Your task to perform on an android device: empty trash in google photos Image 0: 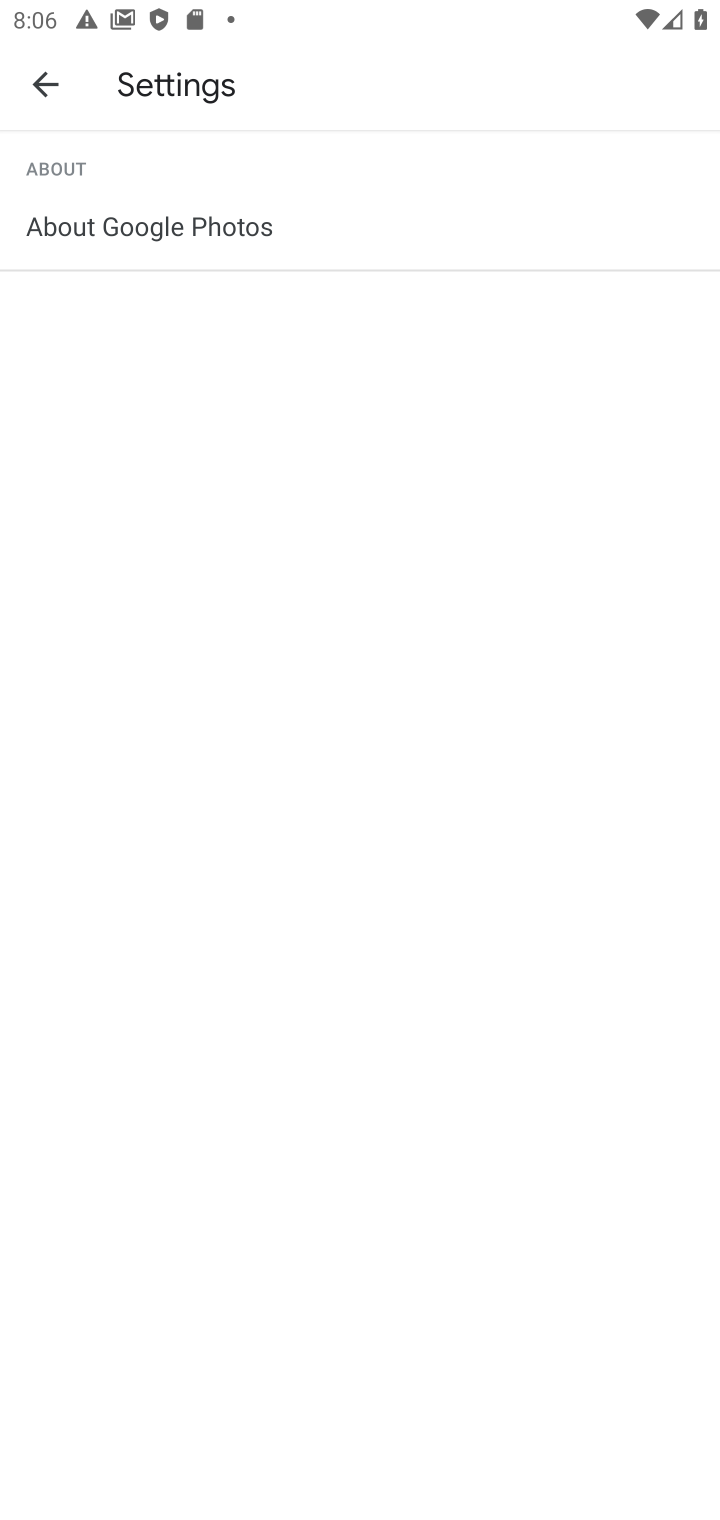
Step 0: press home button
Your task to perform on an android device: empty trash in google photos Image 1: 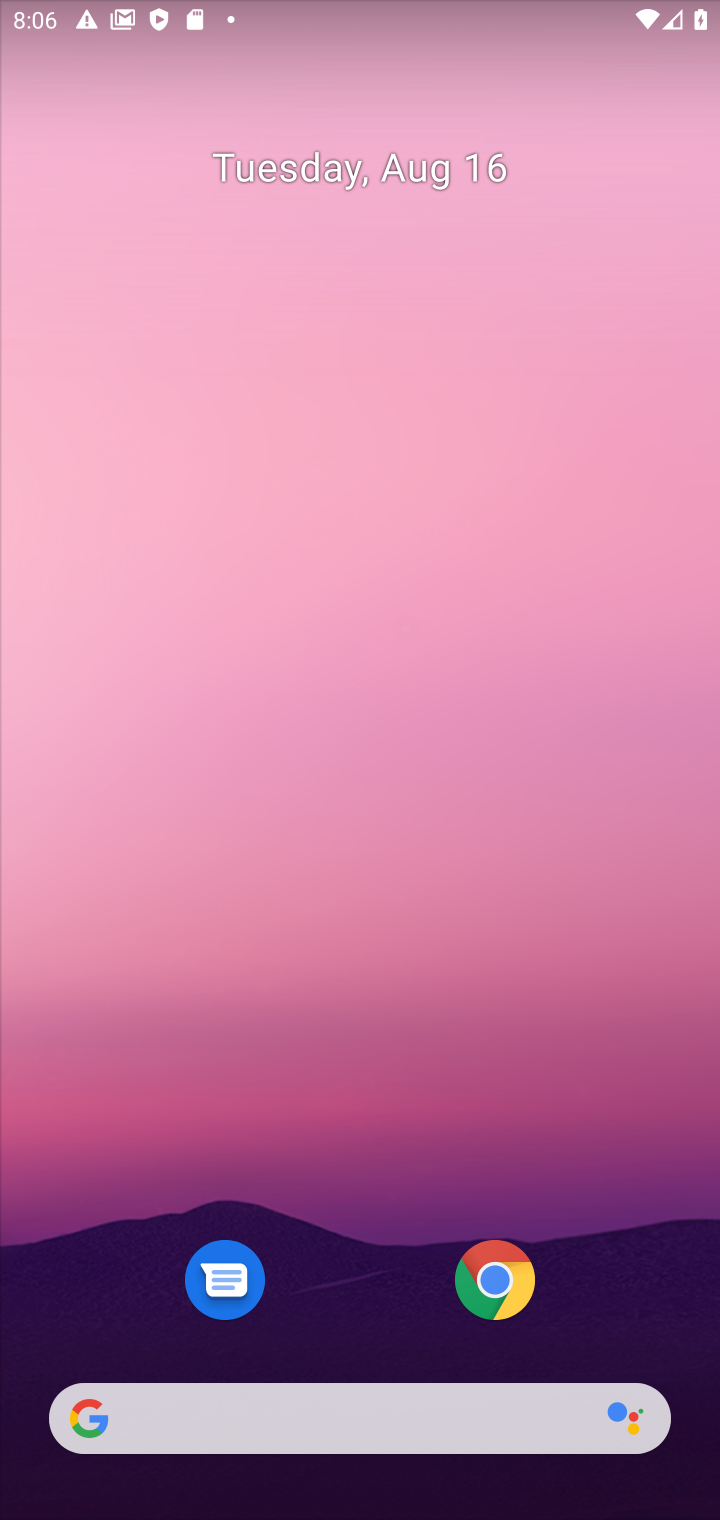
Step 1: drag from (380, 987) to (462, 705)
Your task to perform on an android device: empty trash in google photos Image 2: 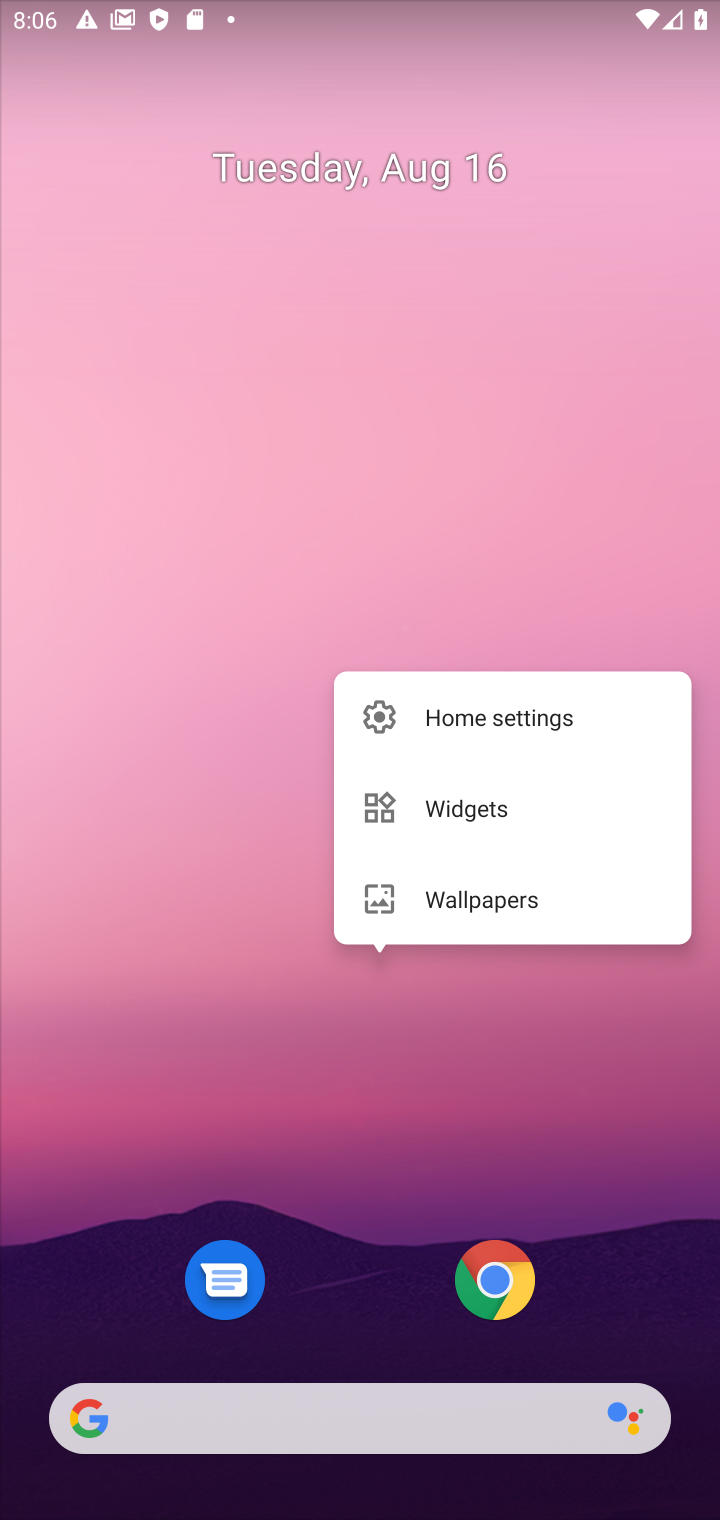
Step 2: click (371, 1115)
Your task to perform on an android device: empty trash in google photos Image 3: 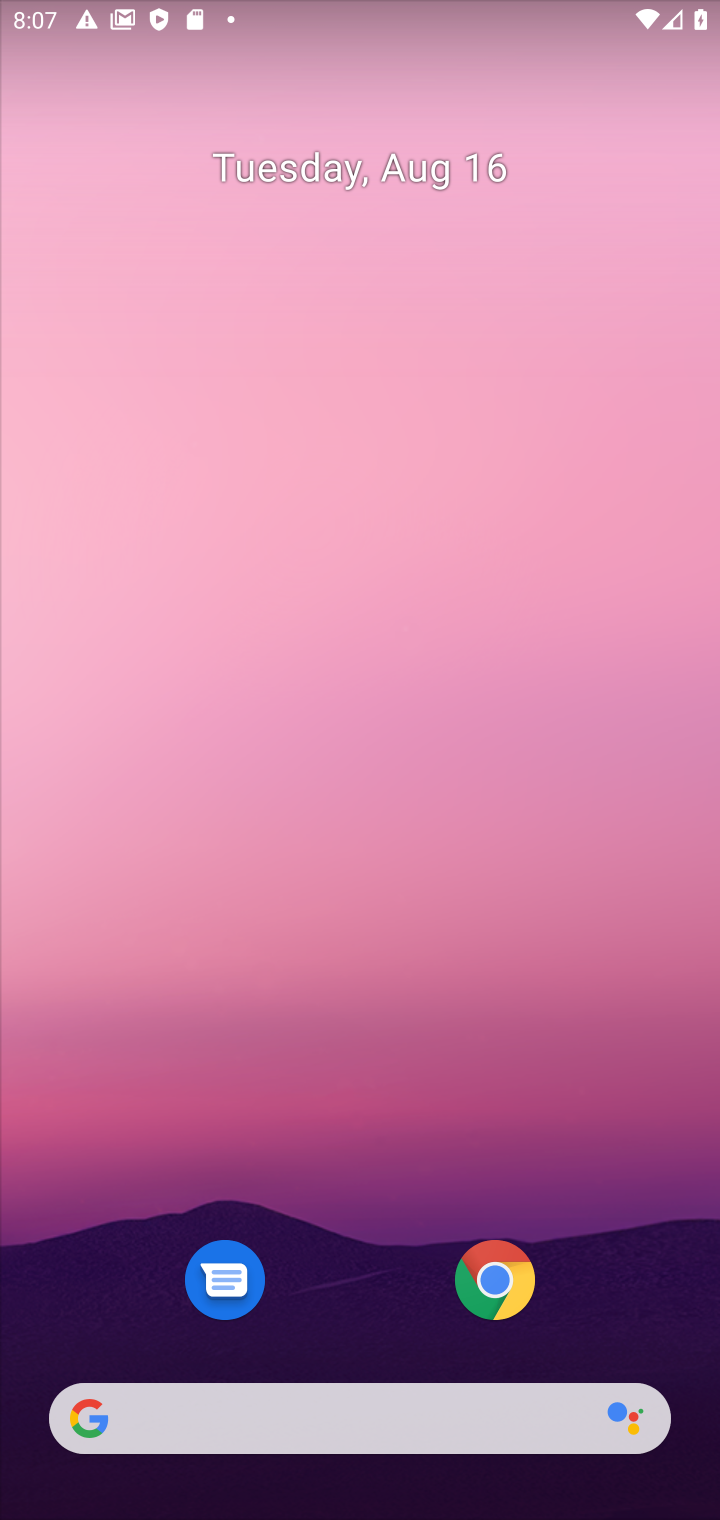
Step 3: drag from (358, 1375) to (390, 476)
Your task to perform on an android device: empty trash in google photos Image 4: 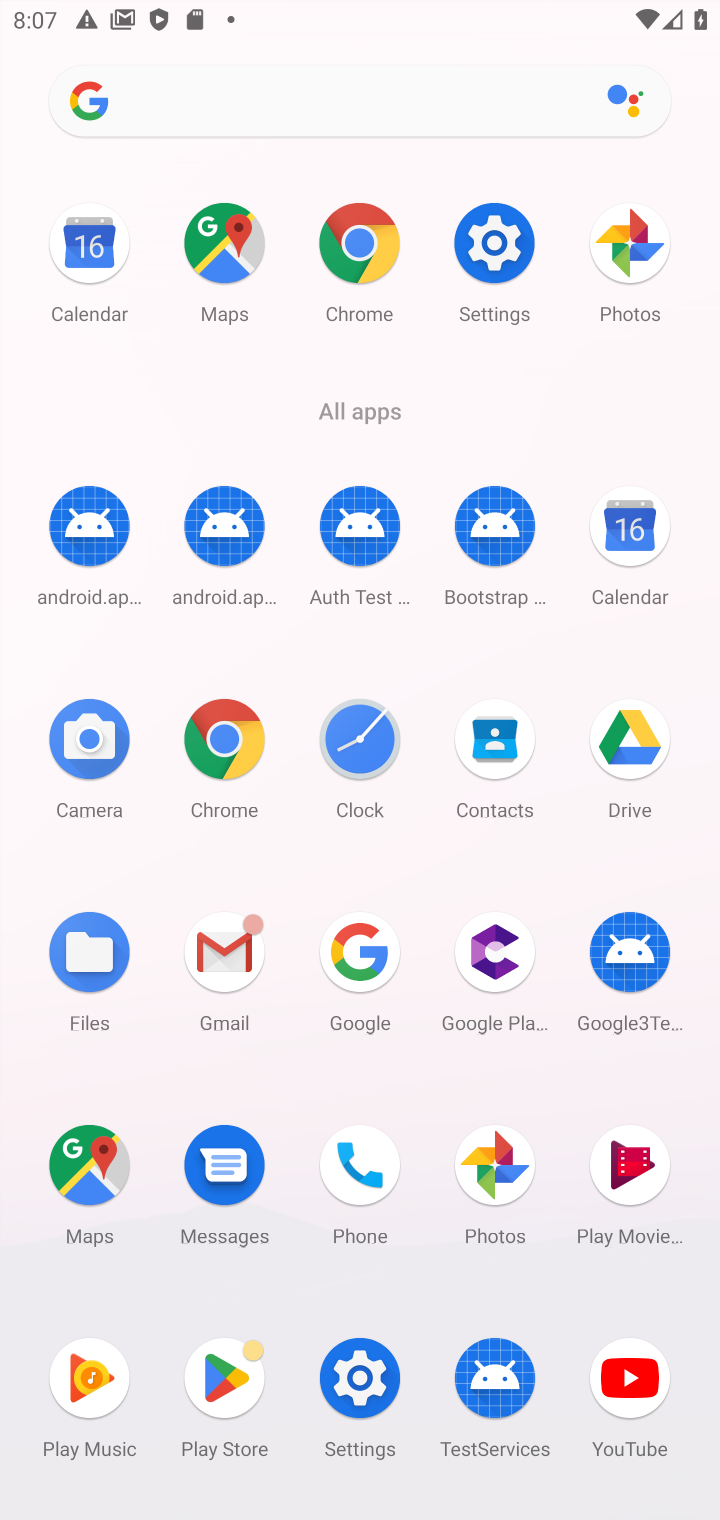
Step 4: click (496, 1184)
Your task to perform on an android device: empty trash in google photos Image 5: 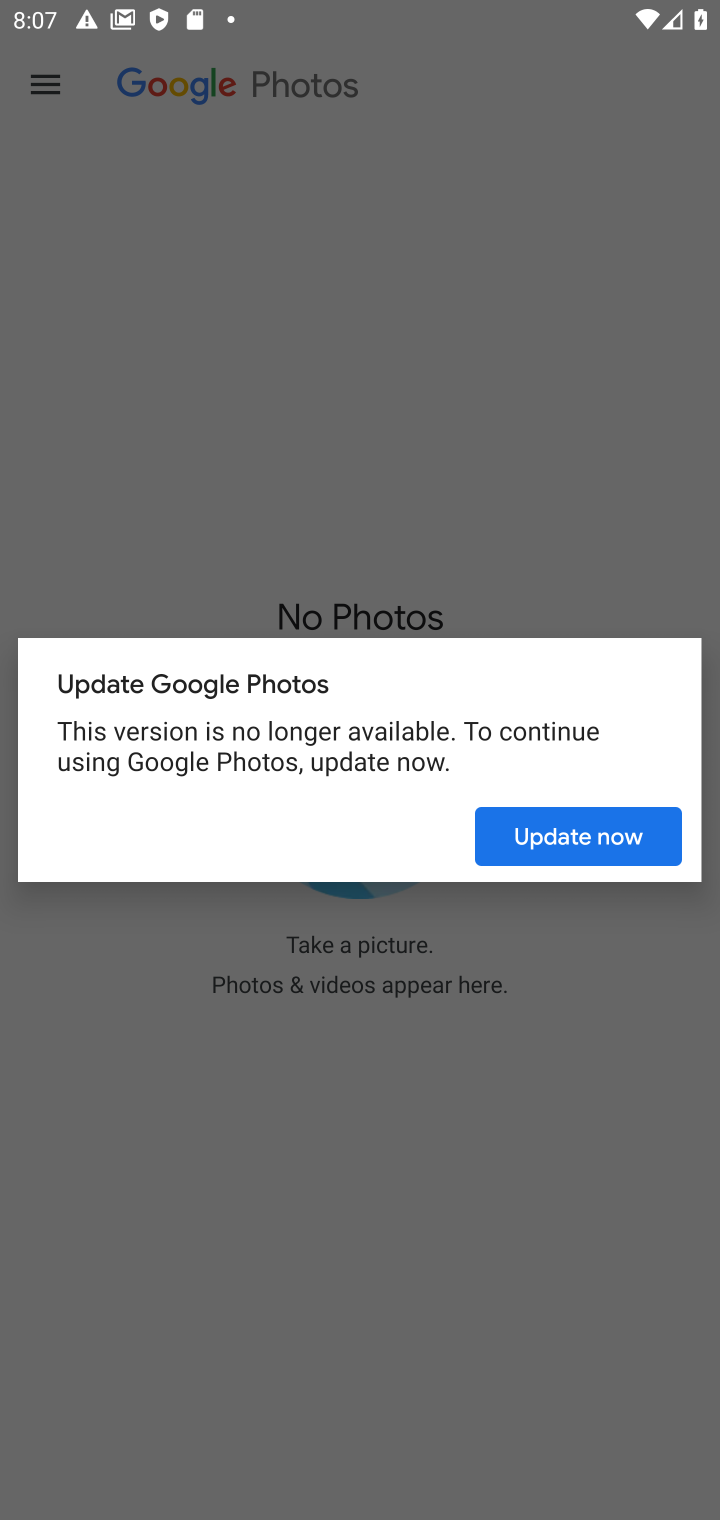
Step 5: click (539, 842)
Your task to perform on an android device: empty trash in google photos Image 6: 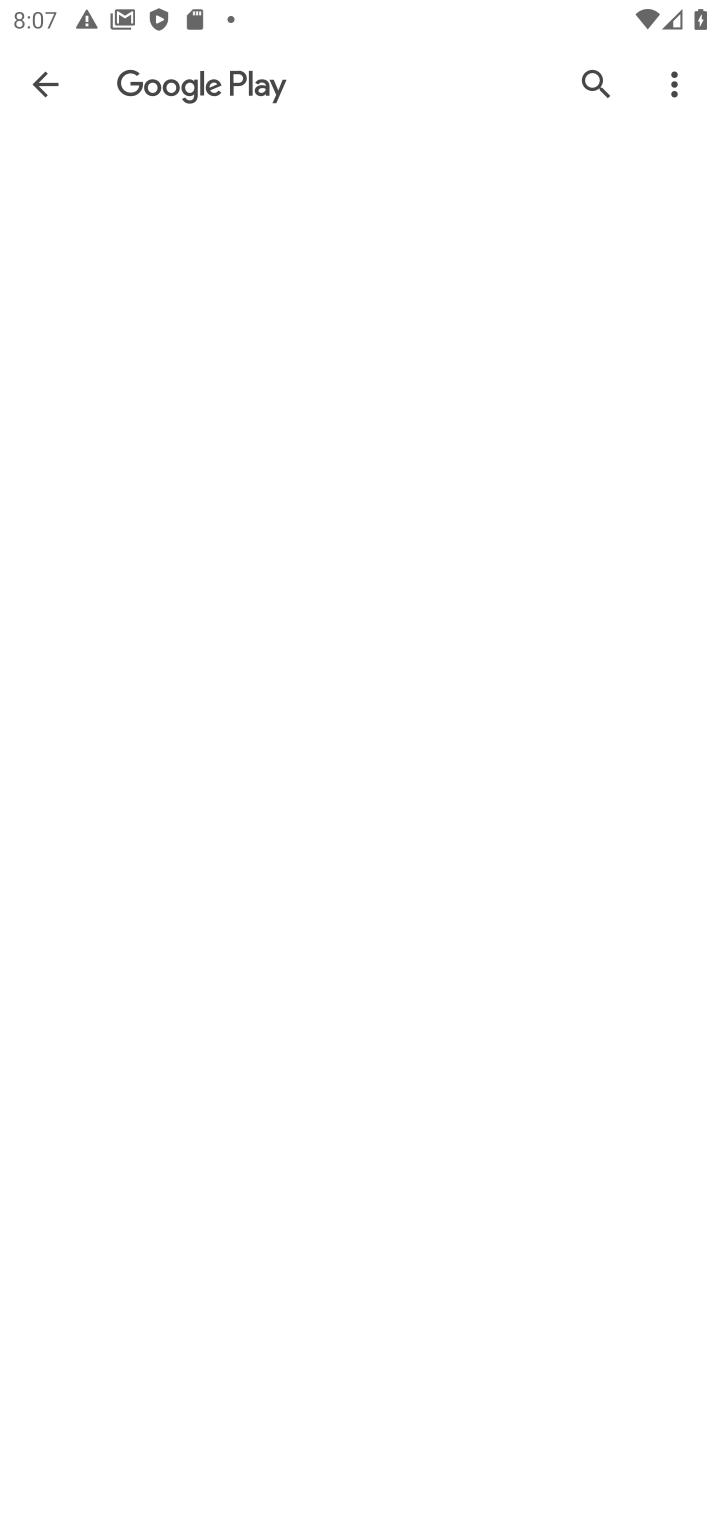
Step 6: press back button
Your task to perform on an android device: empty trash in google photos Image 7: 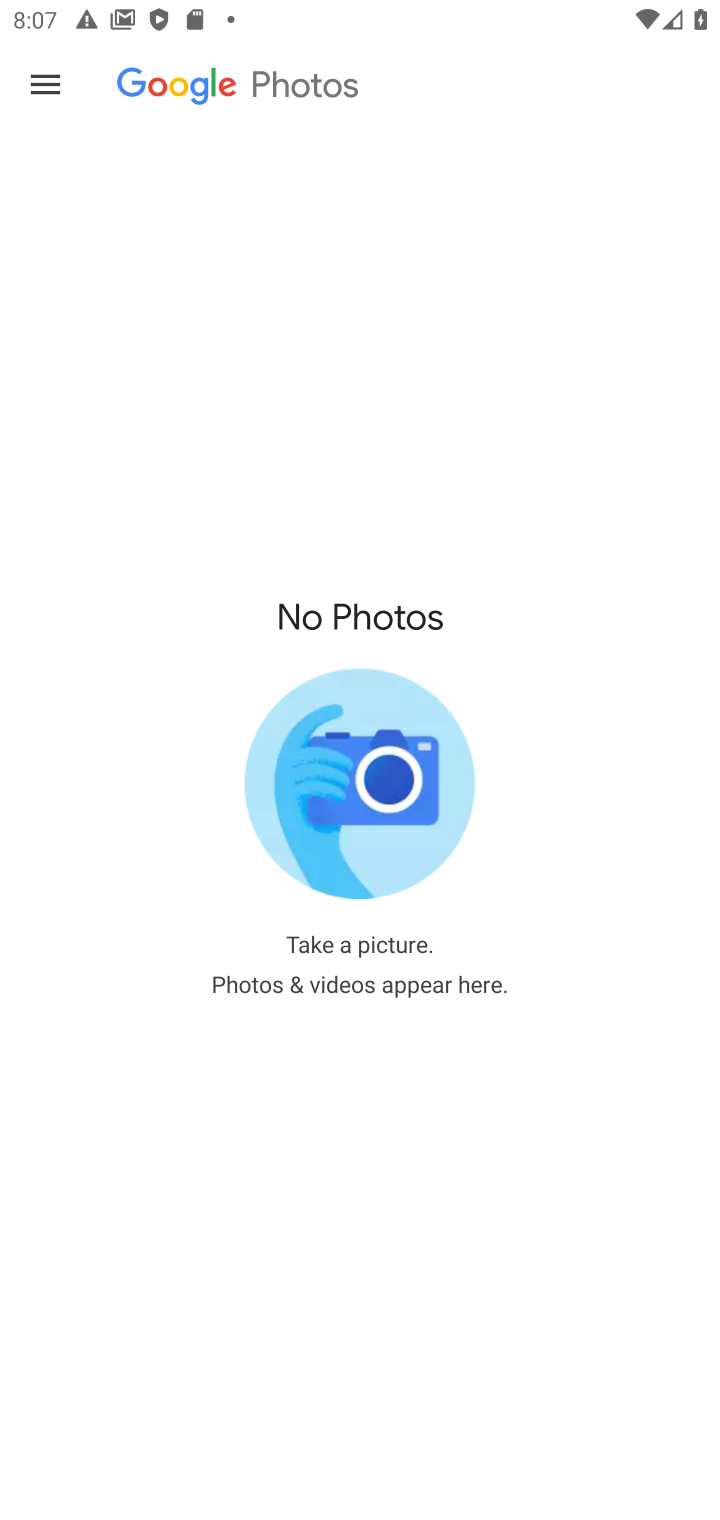
Step 7: click (54, 100)
Your task to perform on an android device: empty trash in google photos Image 8: 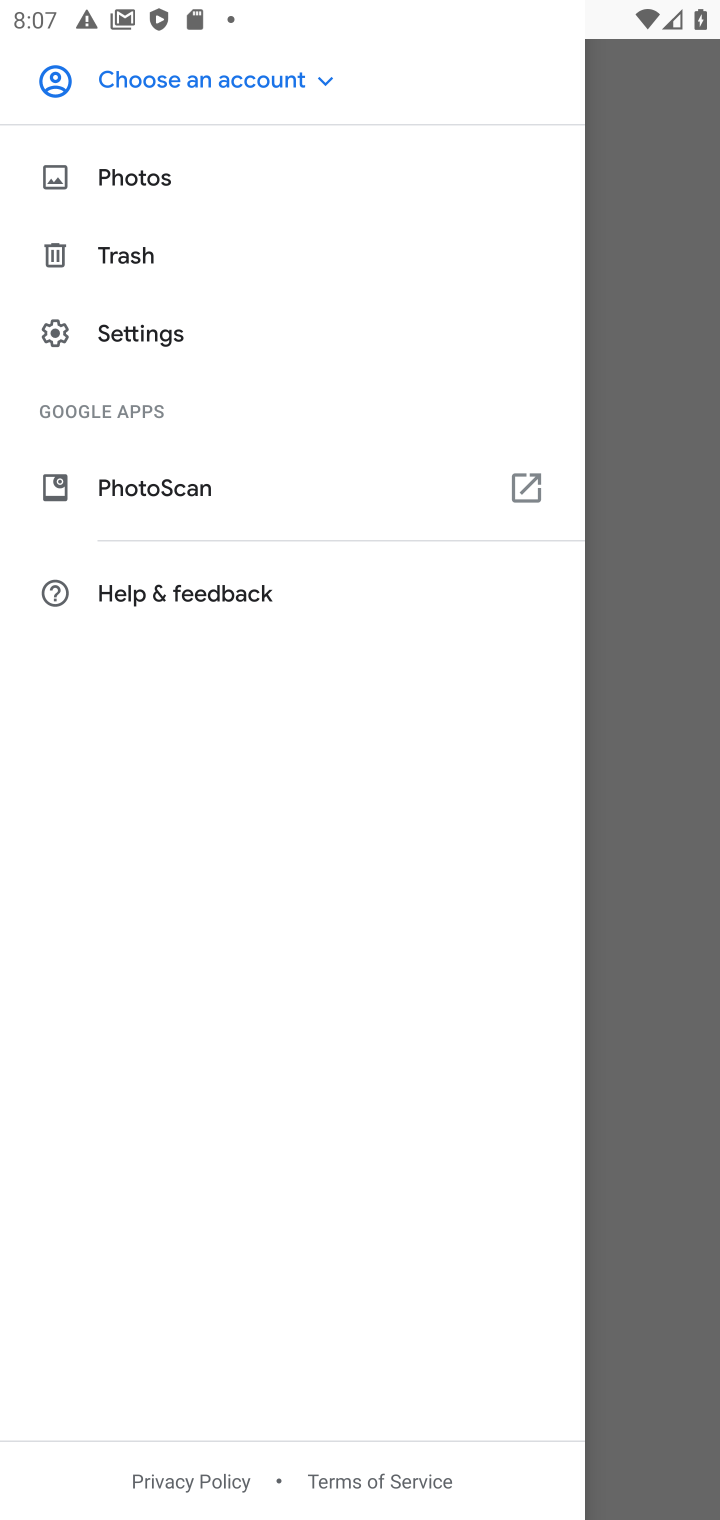
Step 8: click (112, 243)
Your task to perform on an android device: empty trash in google photos Image 9: 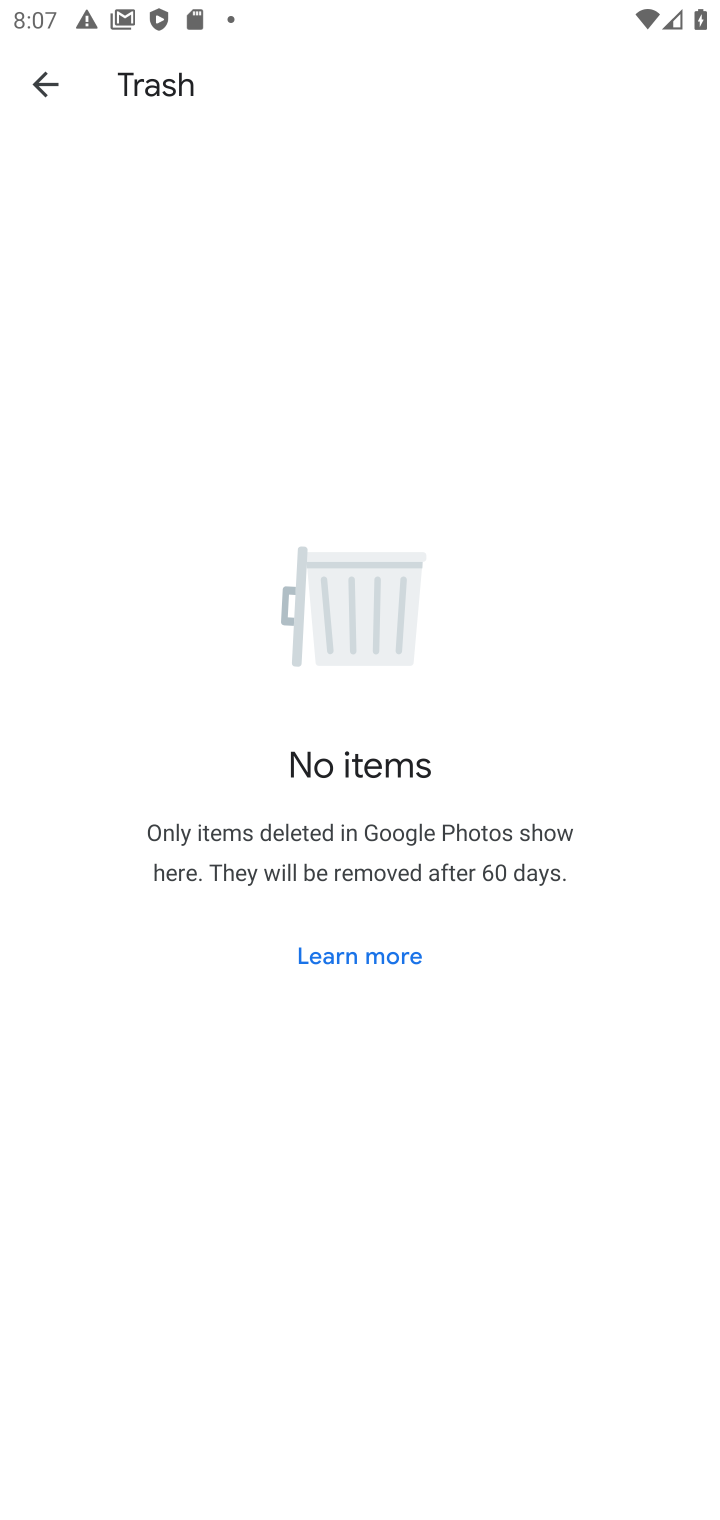
Step 9: task complete